Your task to perform on an android device: Play the last video I watched on Youtube Image 0: 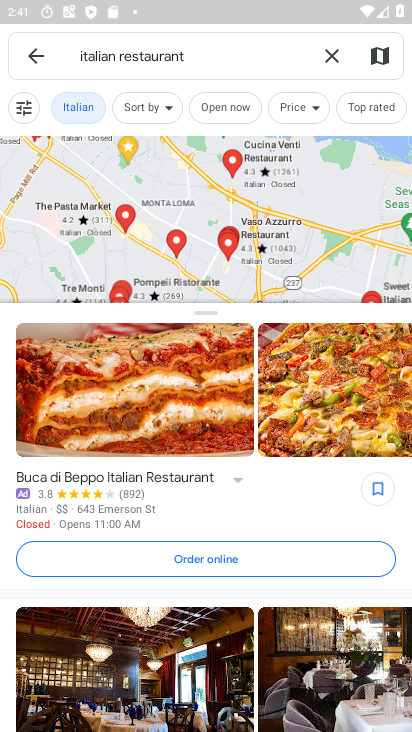
Step 0: press home button
Your task to perform on an android device: Play the last video I watched on Youtube Image 1: 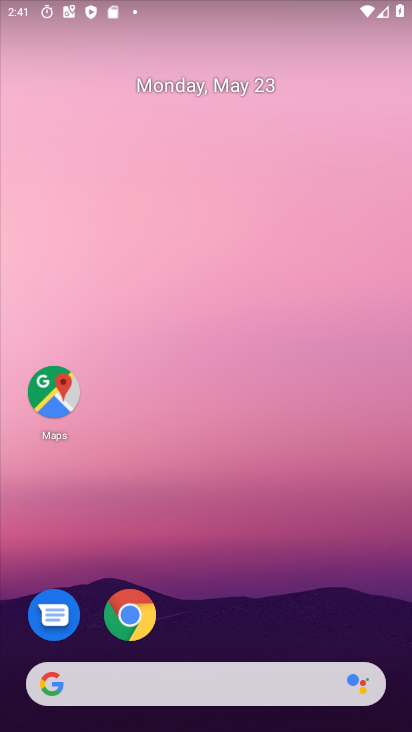
Step 1: drag from (252, 655) to (311, 8)
Your task to perform on an android device: Play the last video I watched on Youtube Image 2: 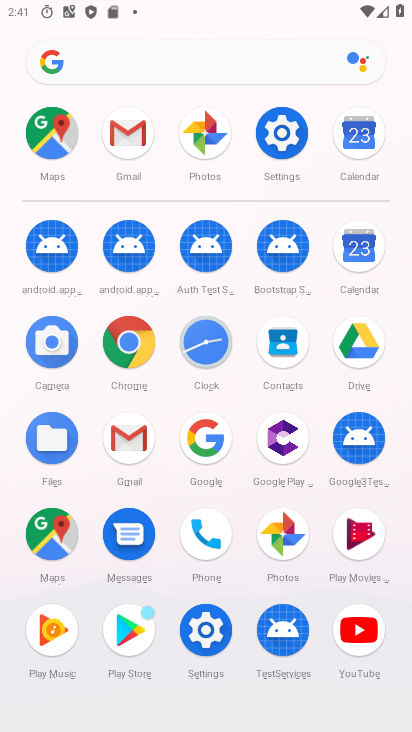
Step 2: click (363, 630)
Your task to perform on an android device: Play the last video I watched on Youtube Image 3: 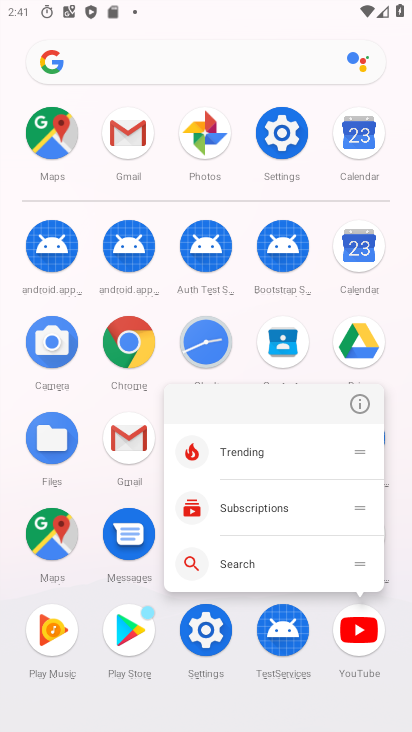
Step 3: click (364, 627)
Your task to perform on an android device: Play the last video I watched on Youtube Image 4: 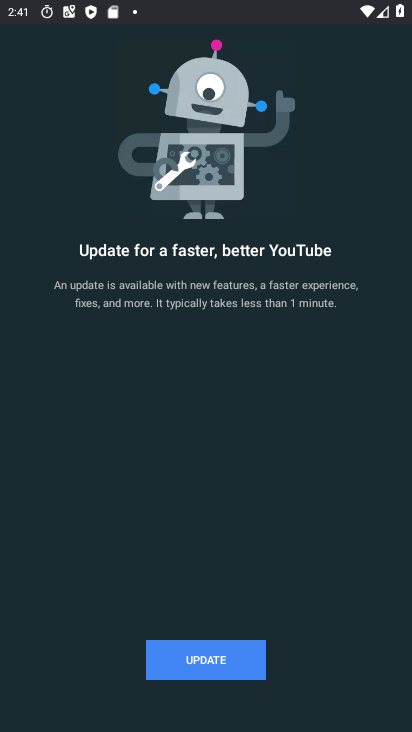
Step 4: click (198, 662)
Your task to perform on an android device: Play the last video I watched on Youtube Image 5: 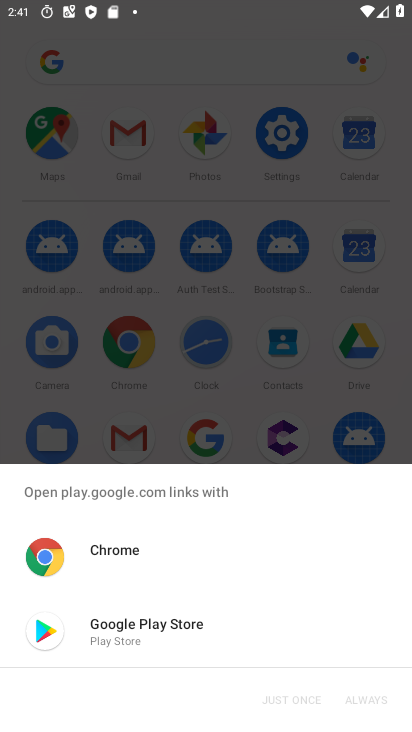
Step 5: click (82, 633)
Your task to perform on an android device: Play the last video I watched on Youtube Image 6: 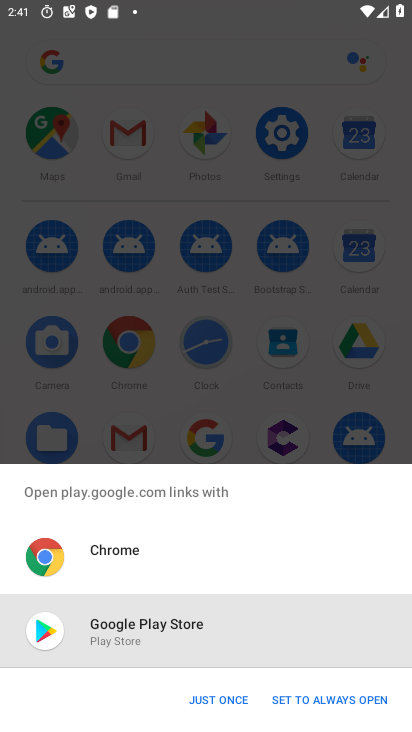
Step 6: click (212, 699)
Your task to perform on an android device: Play the last video I watched on Youtube Image 7: 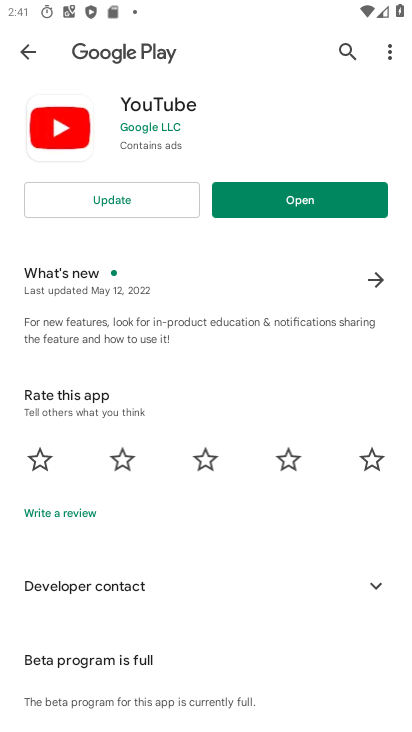
Step 7: click (122, 199)
Your task to perform on an android device: Play the last video I watched on Youtube Image 8: 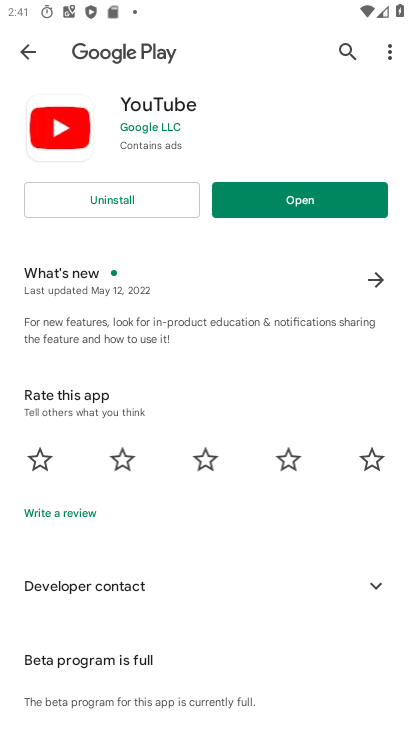
Step 8: click (305, 211)
Your task to perform on an android device: Play the last video I watched on Youtube Image 9: 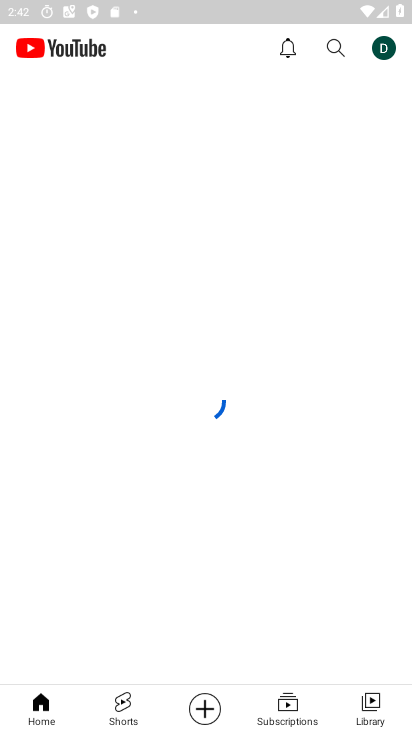
Step 9: click (359, 717)
Your task to perform on an android device: Play the last video I watched on Youtube Image 10: 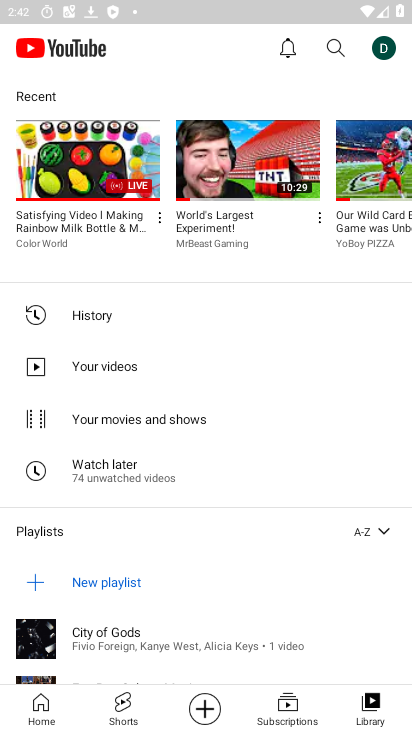
Step 10: click (87, 315)
Your task to perform on an android device: Play the last video I watched on Youtube Image 11: 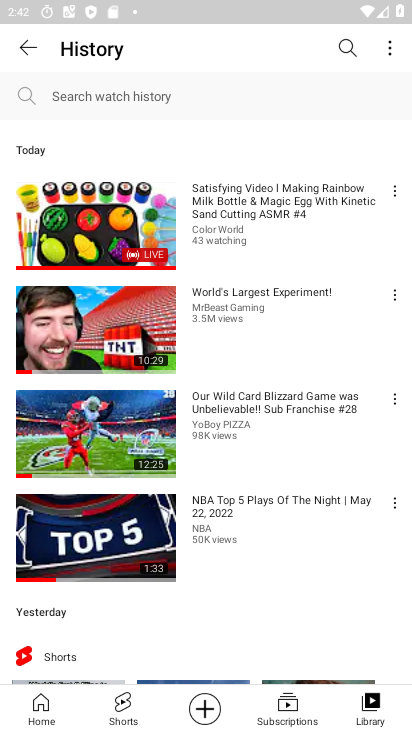
Step 11: click (83, 211)
Your task to perform on an android device: Play the last video I watched on Youtube Image 12: 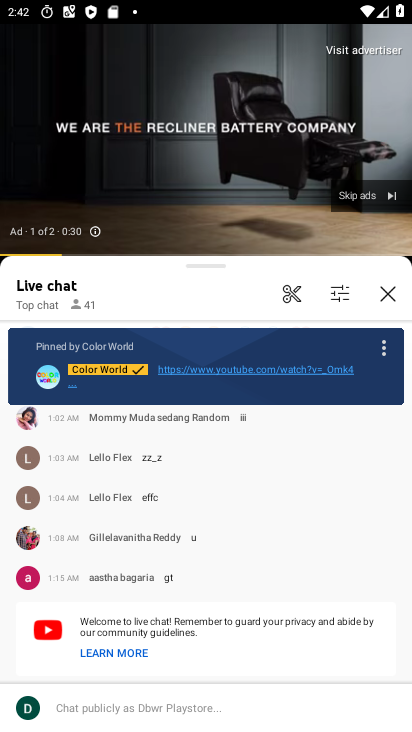
Step 12: click (376, 196)
Your task to perform on an android device: Play the last video I watched on Youtube Image 13: 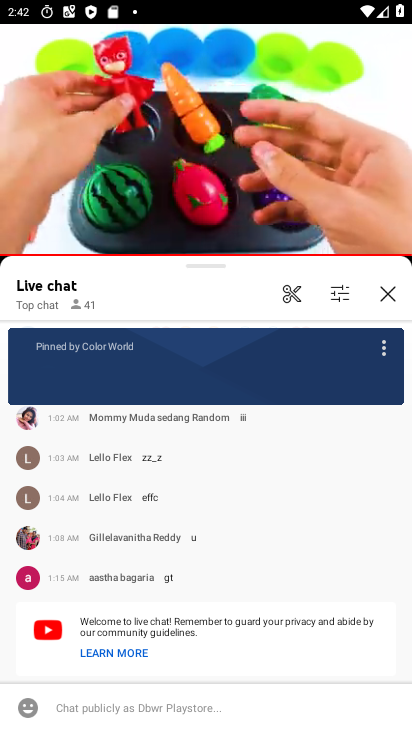
Step 13: click (157, 128)
Your task to perform on an android device: Play the last video I watched on Youtube Image 14: 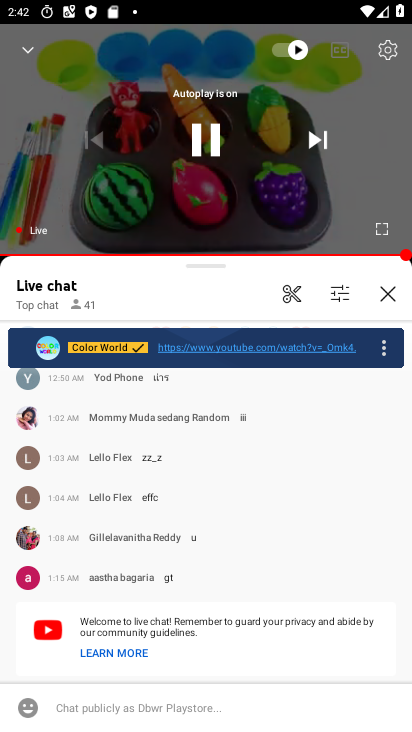
Step 14: click (196, 142)
Your task to perform on an android device: Play the last video I watched on Youtube Image 15: 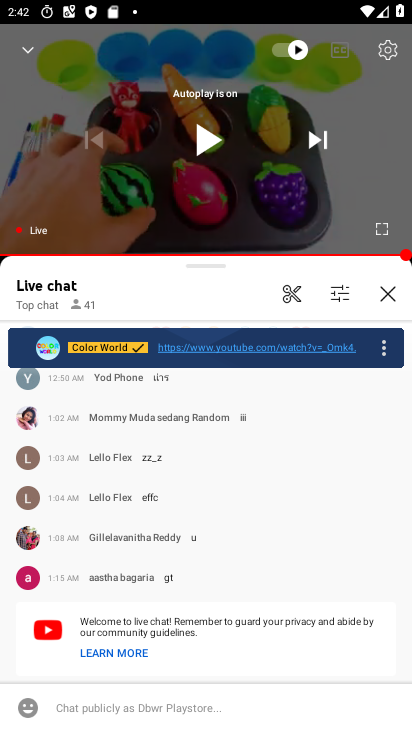
Step 15: task complete